Your task to perform on an android device: change the clock display to digital Image 0: 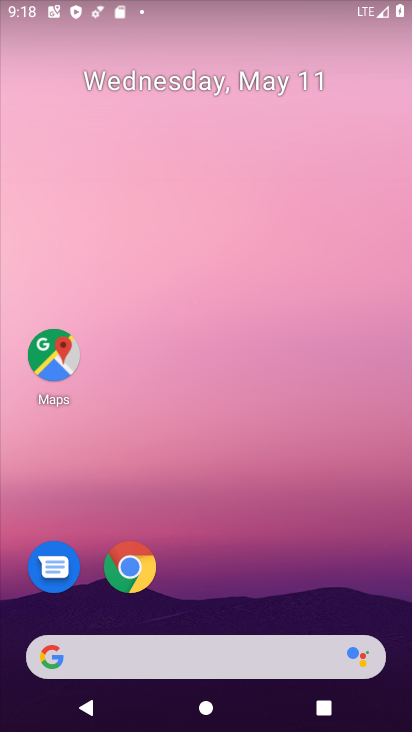
Step 0: drag from (250, 713) to (268, 40)
Your task to perform on an android device: change the clock display to digital Image 1: 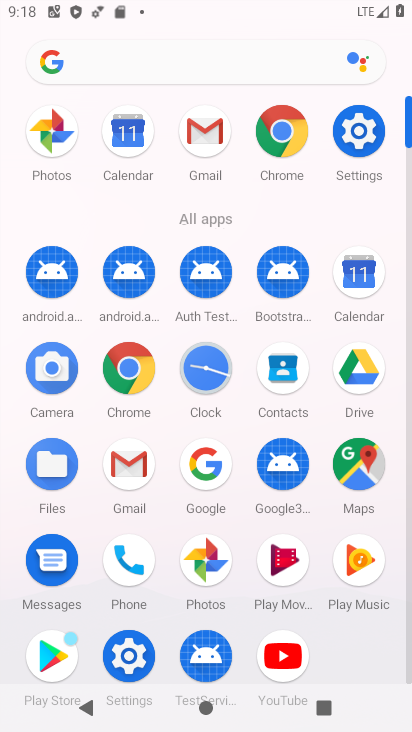
Step 1: click (209, 382)
Your task to perform on an android device: change the clock display to digital Image 2: 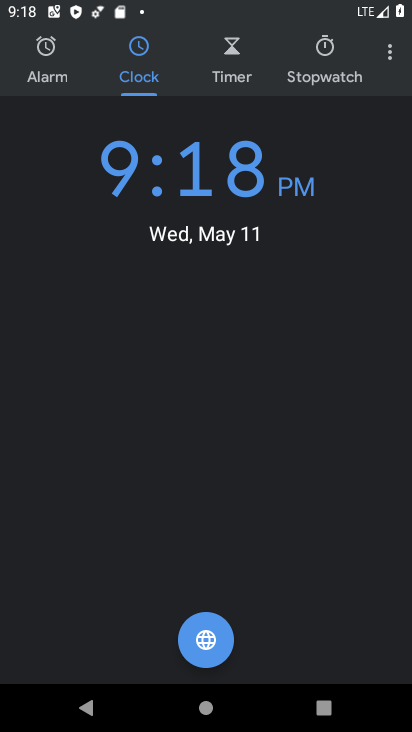
Step 2: click (392, 63)
Your task to perform on an android device: change the clock display to digital Image 3: 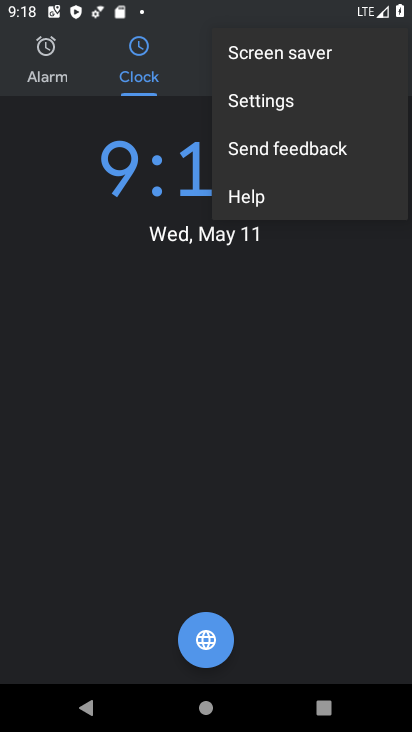
Step 3: click (277, 109)
Your task to perform on an android device: change the clock display to digital Image 4: 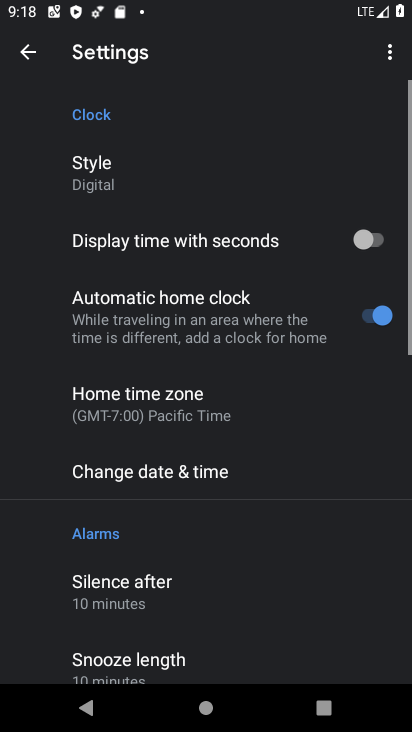
Step 4: click (113, 164)
Your task to perform on an android device: change the clock display to digital Image 5: 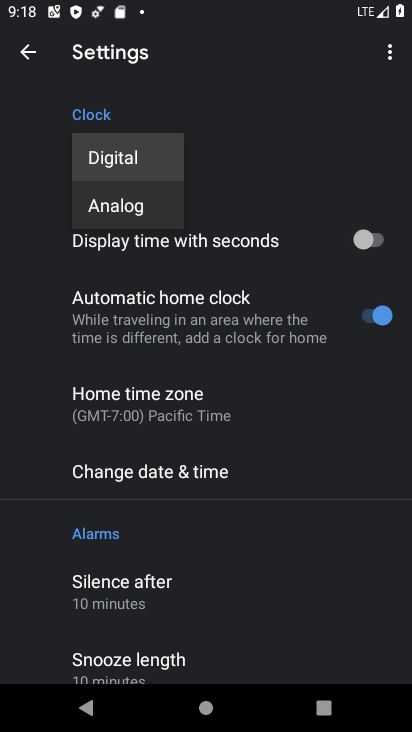
Step 5: task complete